Your task to perform on an android device: Turn on the flashlight Image 0: 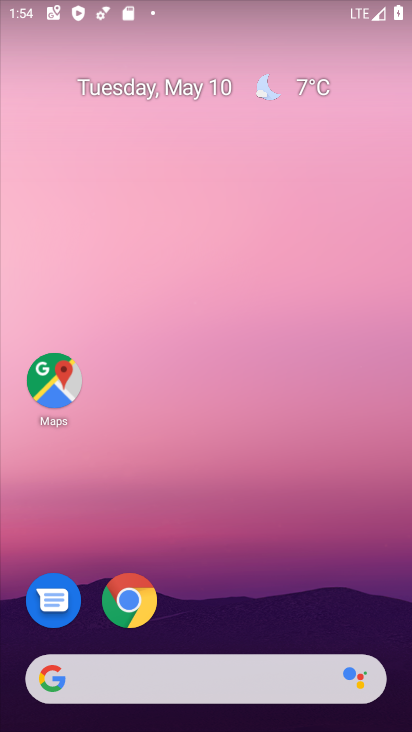
Step 0: drag from (274, 4) to (242, 364)
Your task to perform on an android device: Turn on the flashlight Image 1: 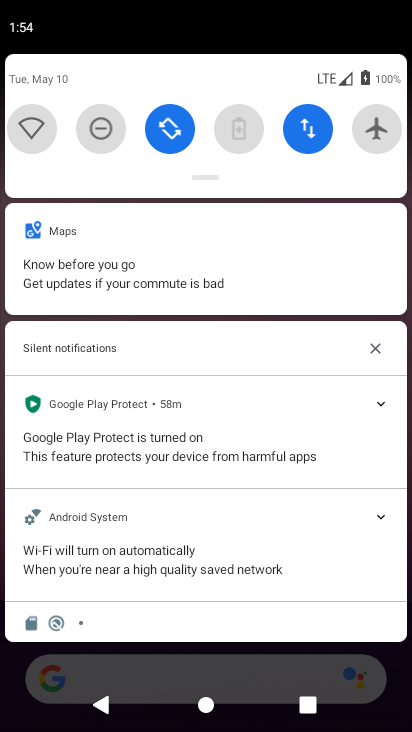
Step 1: task complete